Your task to perform on an android device: turn on javascript in the chrome app Image 0: 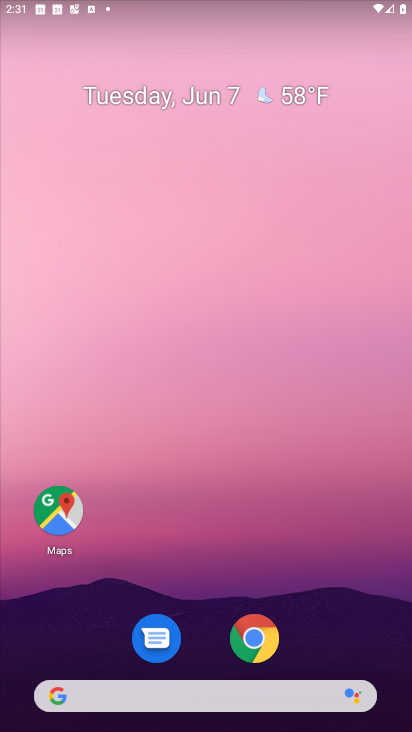
Step 0: click (228, 335)
Your task to perform on an android device: turn on javascript in the chrome app Image 1: 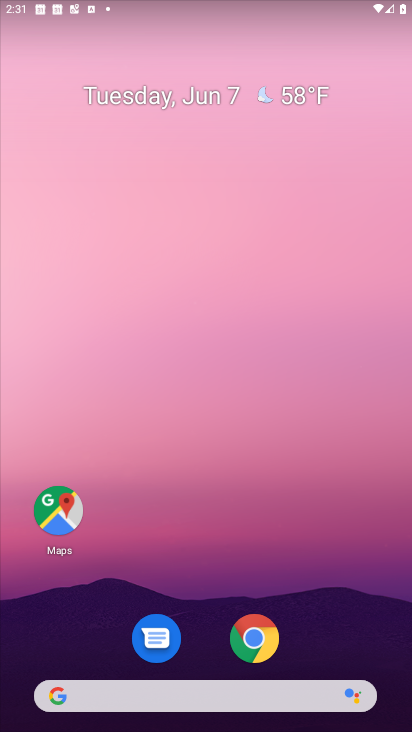
Step 1: drag from (211, 607) to (217, 261)
Your task to perform on an android device: turn on javascript in the chrome app Image 2: 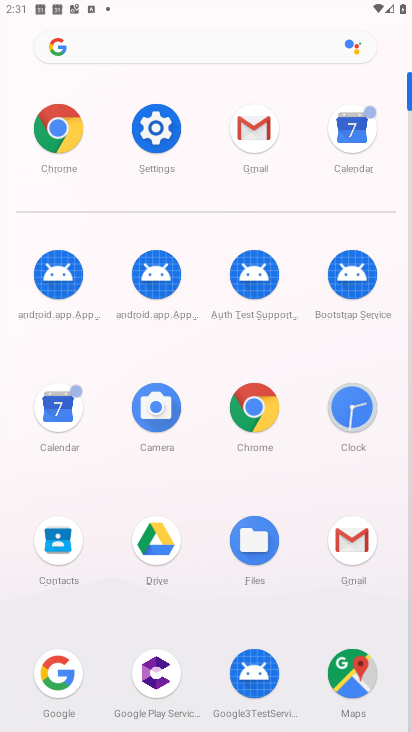
Step 2: click (59, 125)
Your task to perform on an android device: turn on javascript in the chrome app Image 3: 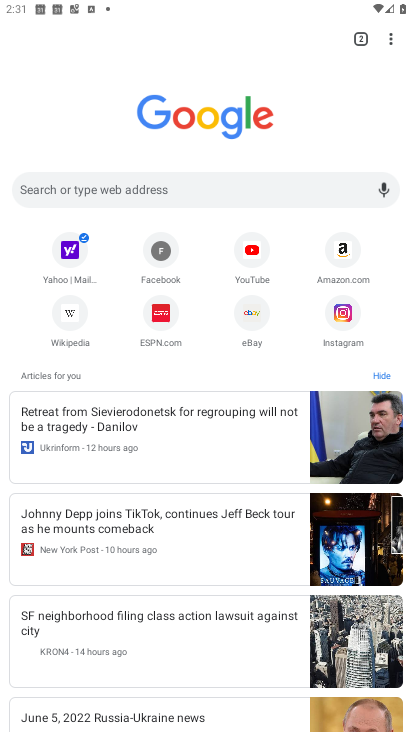
Step 3: click (389, 34)
Your task to perform on an android device: turn on javascript in the chrome app Image 4: 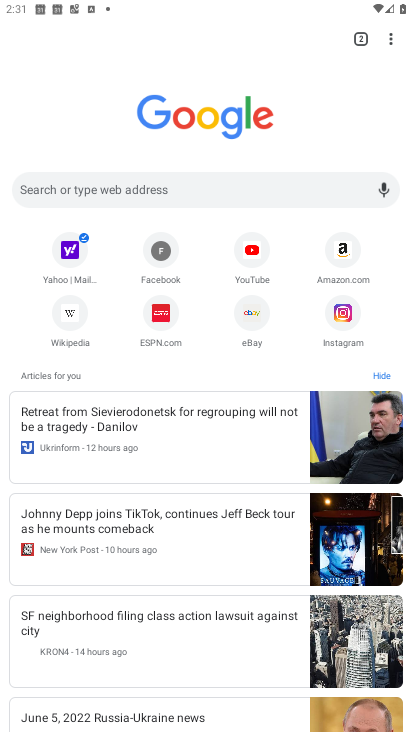
Step 4: click (391, 38)
Your task to perform on an android device: turn on javascript in the chrome app Image 5: 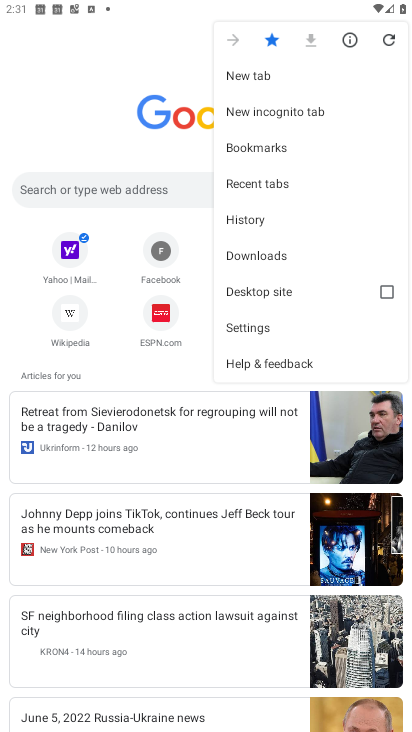
Step 5: click (248, 325)
Your task to perform on an android device: turn on javascript in the chrome app Image 6: 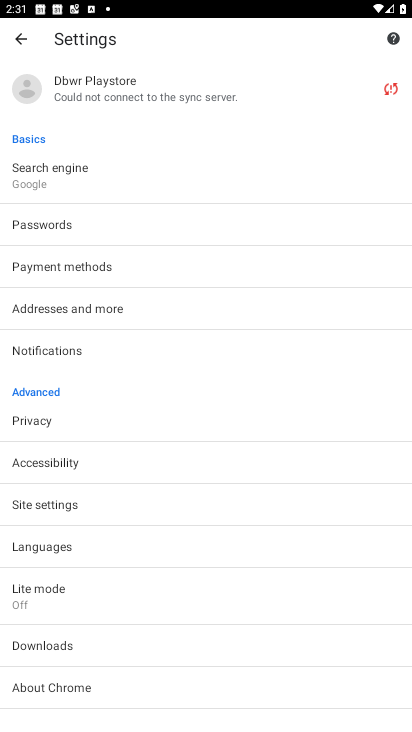
Step 6: click (57, 504)
Your task to perform on an android device: turn on javascript in the chrome app Image 7: 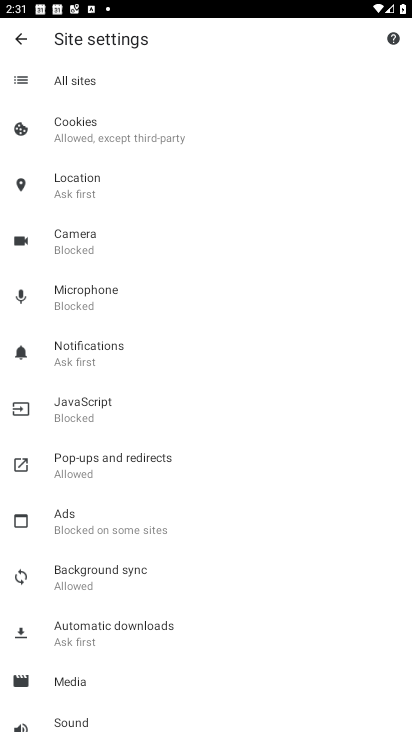
Step 7: click (167, 412)
Your task to perform on an android device: turn on javascript in the chrome app Image 8: 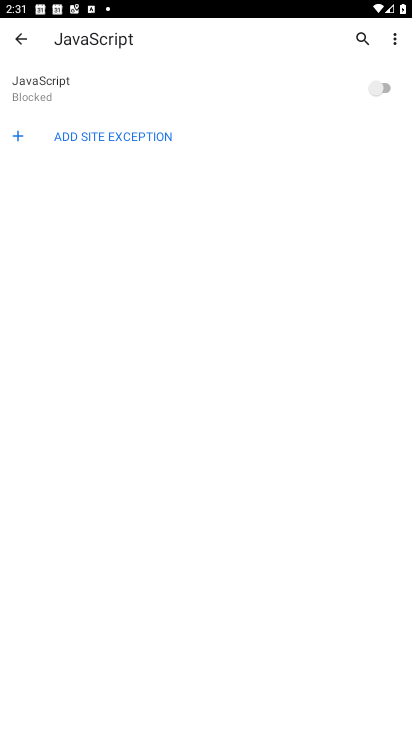
Step 8: click (378, 87)
Your task to perform on an android device: turn on javascript in the chrome app Image 9: 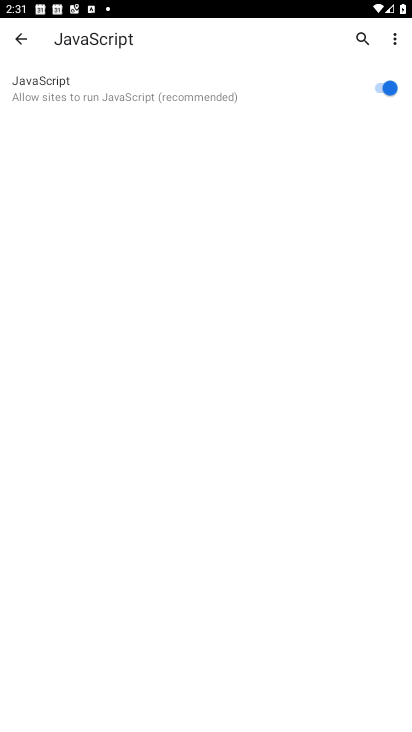
Step 9: task complete